Your task to perform on an android device: empty trash in google photos Image 0: 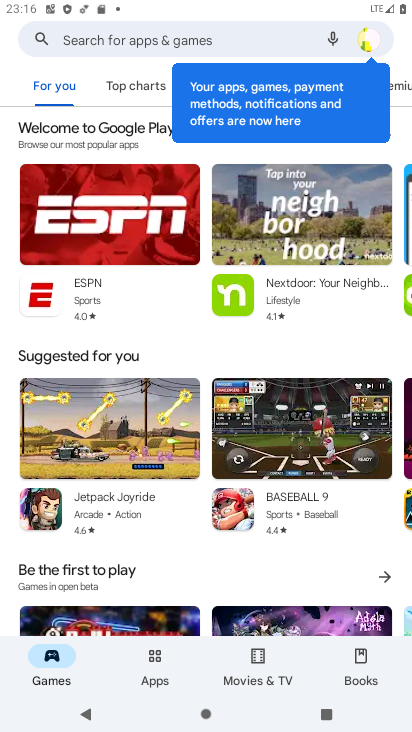
Step 0: press home button
Your task to perform on an android device: empty trash in google photos Image 1: 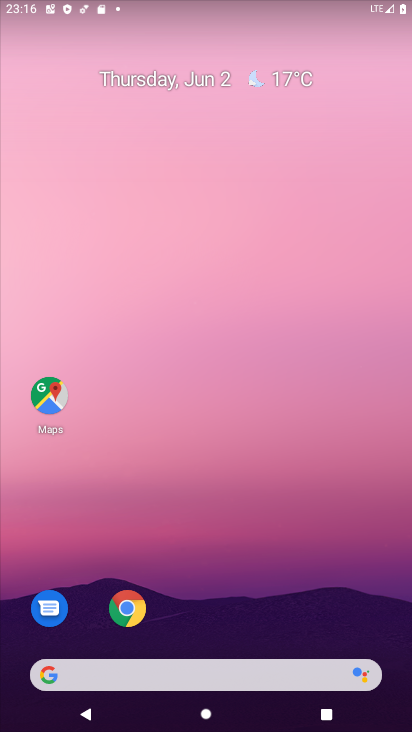
Step 1: drag from (283, 587) to (153, 13)
Your task to perform on an android device: empty trash in google photos Image 2: 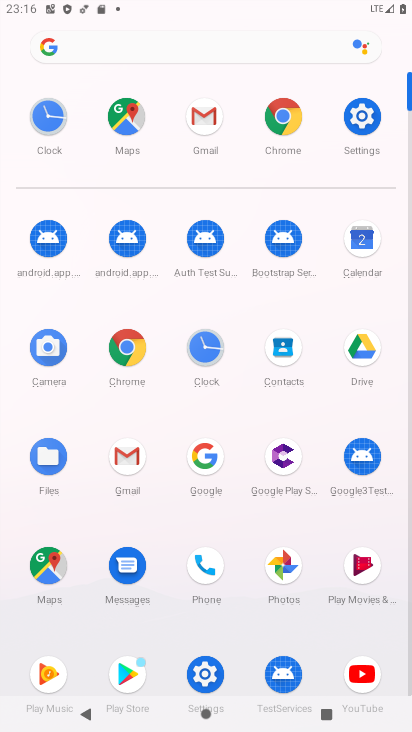
Step 2: click (289, 564)
Your task to perform on an android device: empty trash in google photos Image 3: 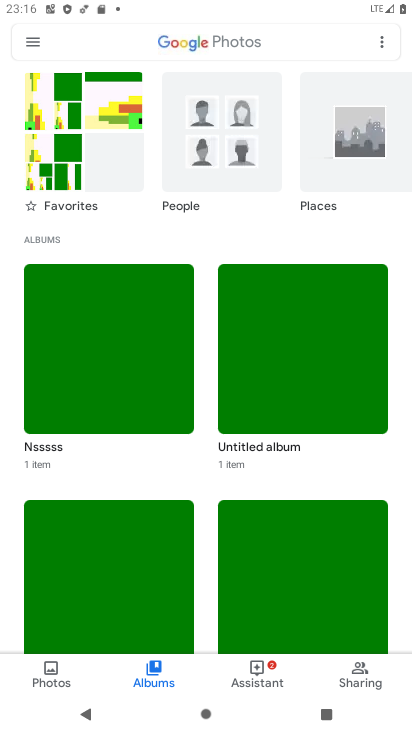
Step 3: drag from (211, 345) to (218, 616)
Your task to perform on an android device: empty trash in google photos Image 4: 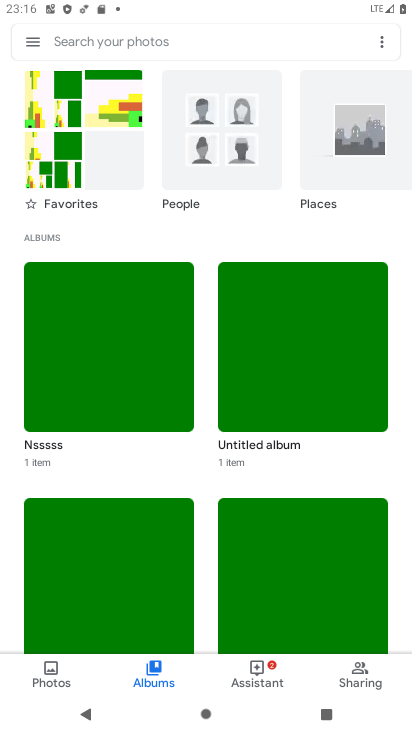
Step 4: click (375, 41)
Your task to perform on an android device: empty trash in google photos Image 5: 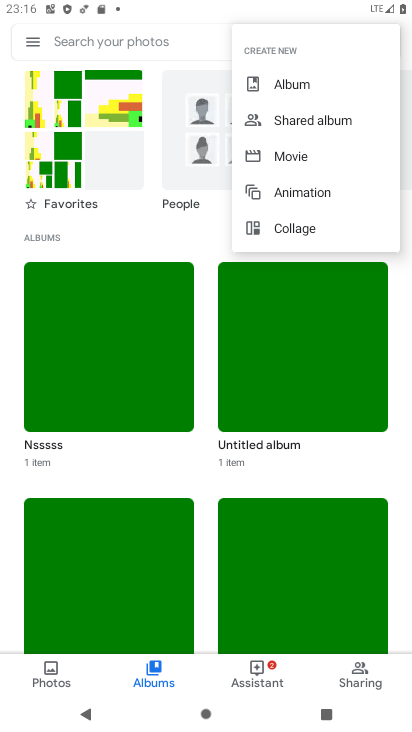
Step 5: click (188, 235)
Your task to perform on an android device: empty trash in google photos Image 6: 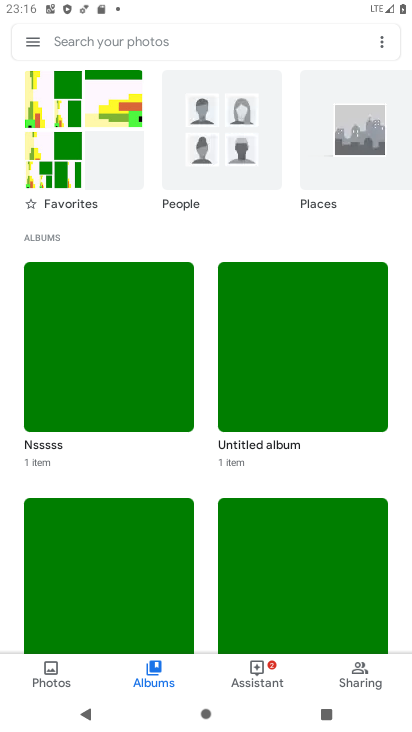
Step 6: click (38, 40)
Your task to perform on an android device: empty trash in google photos Image 7: 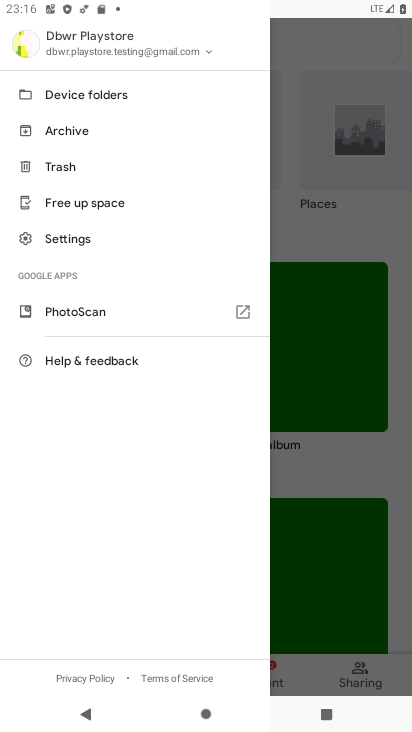
Step 7: click (96, 170)
Your task to perform on an android device: empty trash in google photos Image 8: 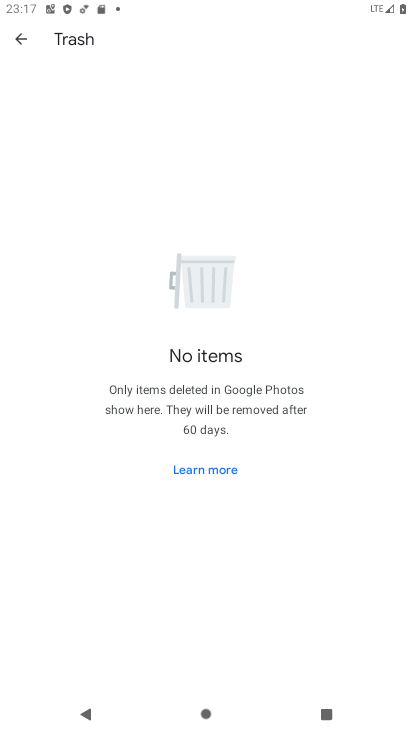
Step 8: task complete